Your task to perform on an android device: change timer sound Image 0: 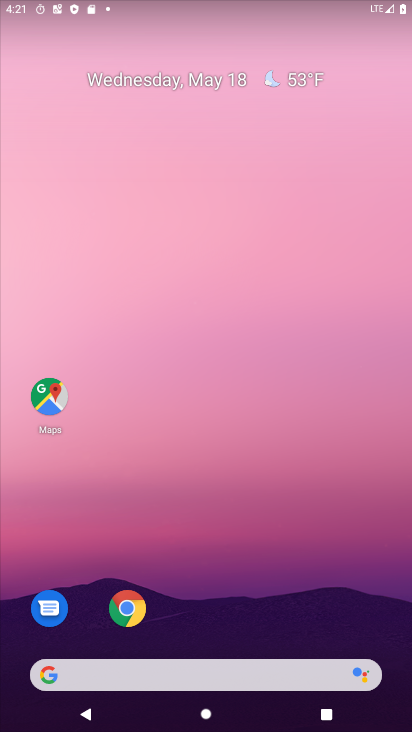
Step 0: press home button
Your task to perform on an android device: change timer sound Image 1: 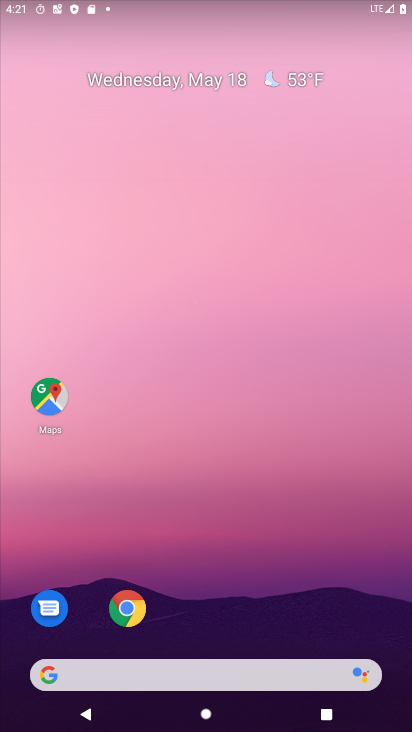
Step 1: drag from (292, 674) to (361, 0)
Your task to perform on an android device: change timer sound Image 2: 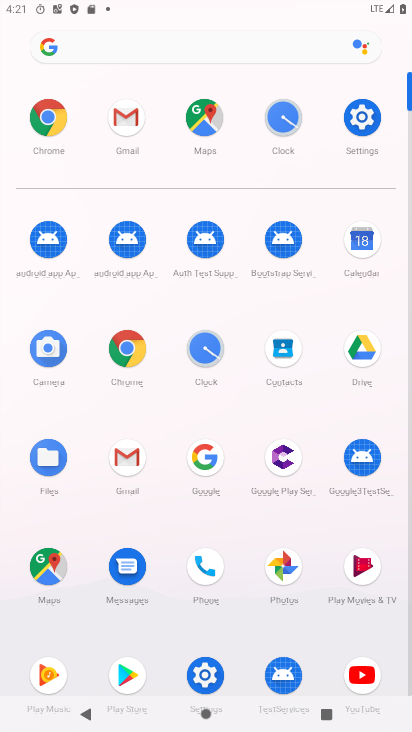
Step 2: click (381, 117)
Your task to perform on an android device: change timer sound Image 3: 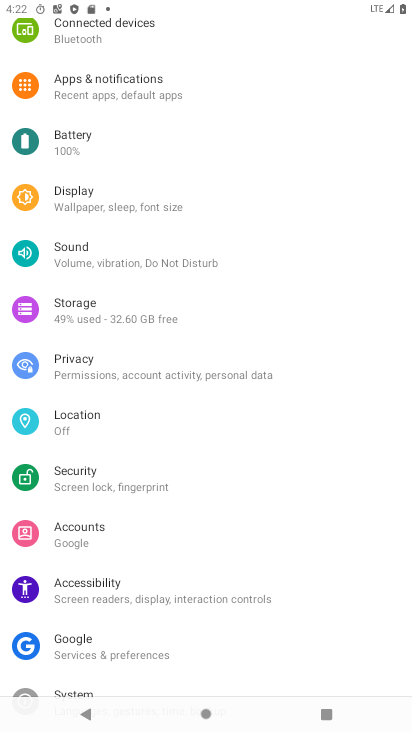
Step 3: press home button
Your task to perform on an android device: change timer sound Image 4: 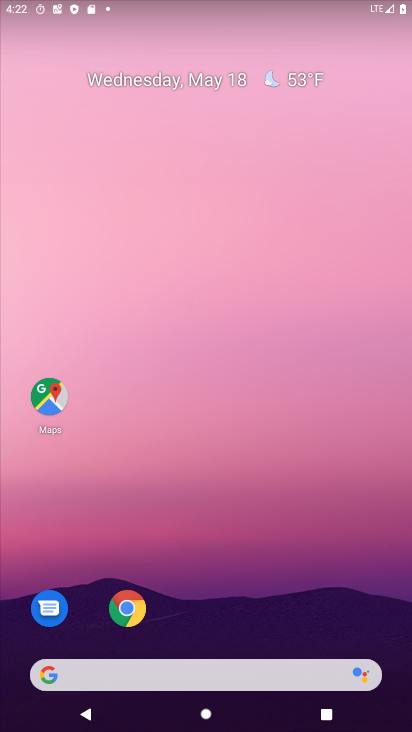
Step 4: drag from (186, 671) to (207, 215)
Your task to perform on an android device: change timer sound Image 5: 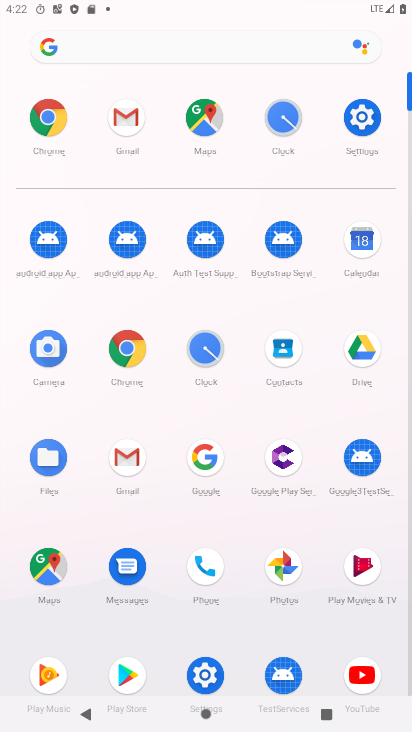
Step 5: click (193, 348)
Your task to perform on an android device: change timer sound Image 6: 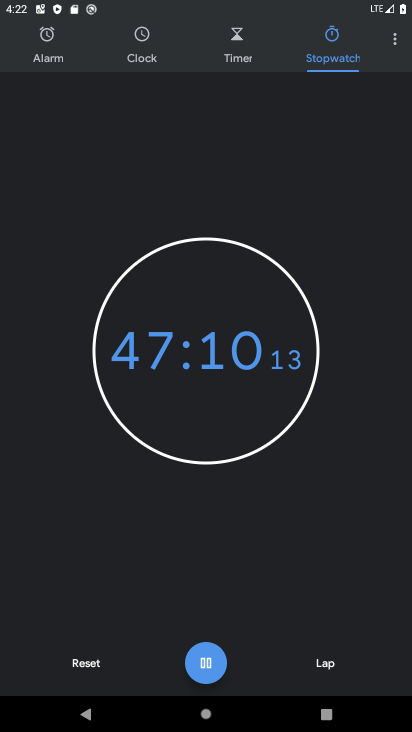
Step 6: click (397, 45)
Your task to perform on an android device: change timer sound Image 7: 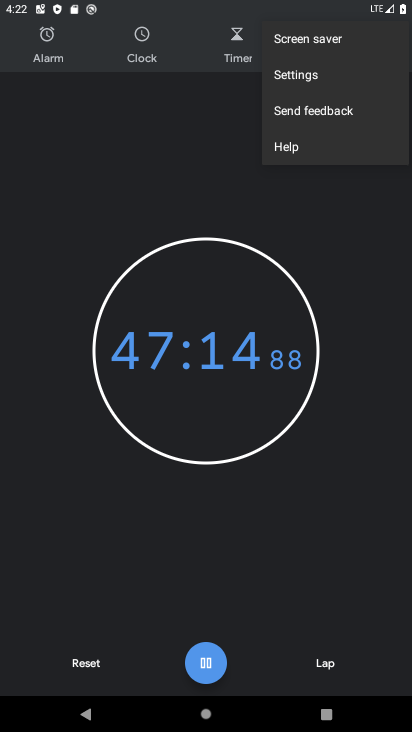
Step 7: click (305, 73)
Your task to perform on an android device: change timer sound Image 8: 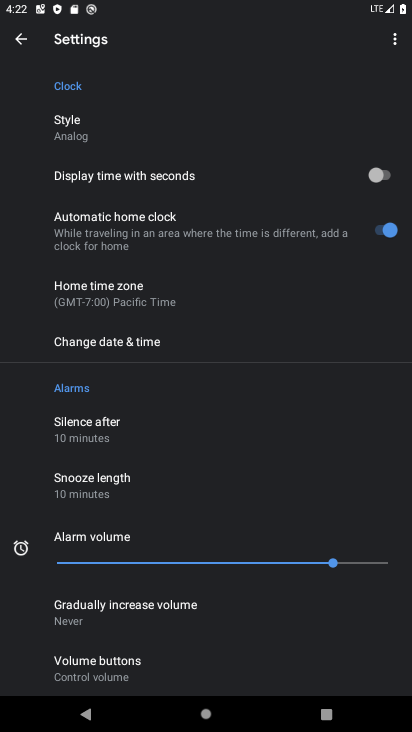
Step 8: drag from (165, 657) to (218, 132)
Your task to perform on an android device: change timer sound Image 9: 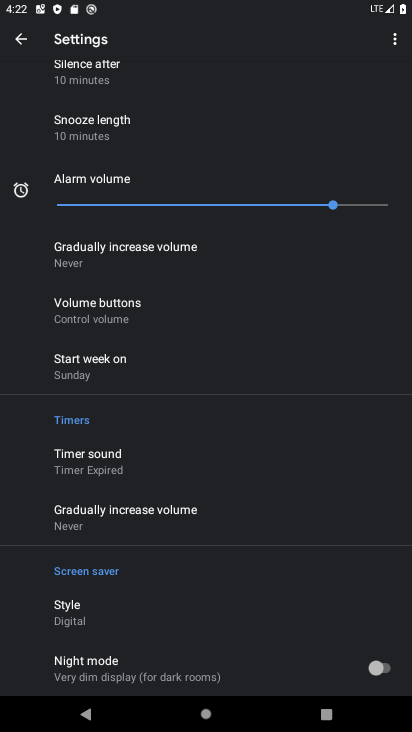
Step 9: click (122, 464)
Your task to perform on an android device: change timer sound Image 10: 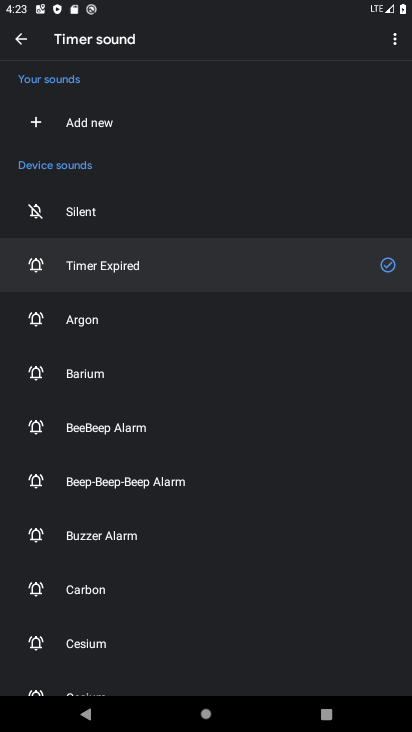
Step 10: click (149, 325)
Your task to perform on an android device: change timer sound Image 11: 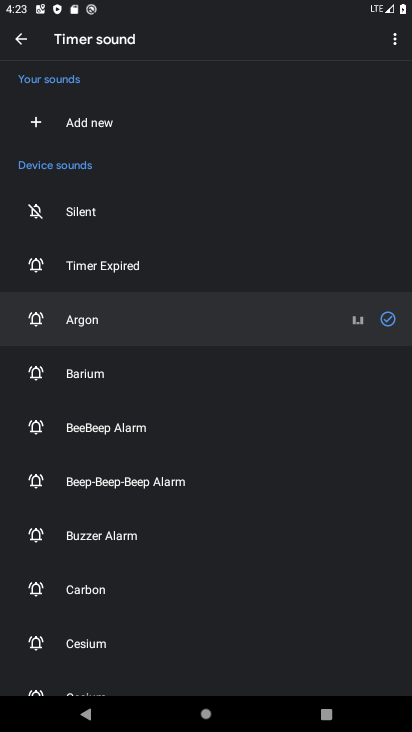
Step 11: task complete